Your task to perform on an android device: Open Google Maps and go to "Timeline" Image 0: 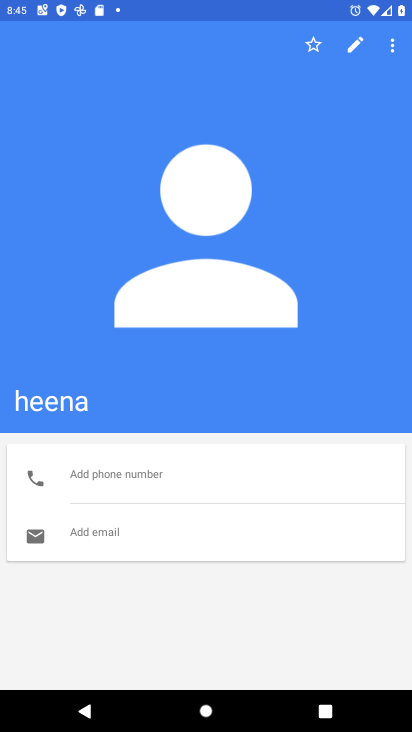
Step 0: press home button
Your task to perform on an android device: Open Google Maps and go to "Timeline" Image 1: 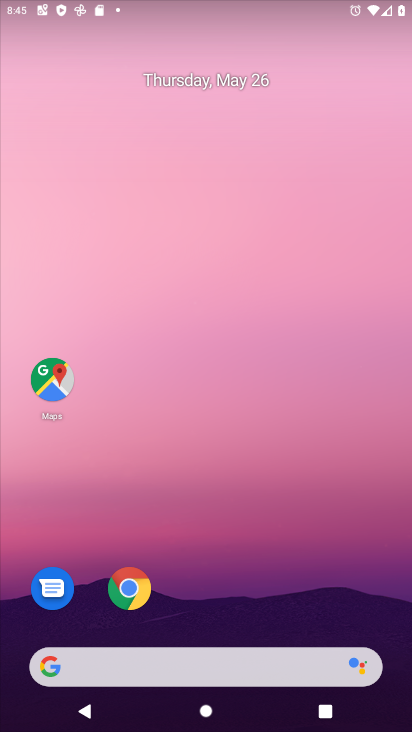
Step 1: drag from (392, 649) to (316, 80)
Your task to perform on an android device: Open Google Maps and go to "Timeline" Image 2: 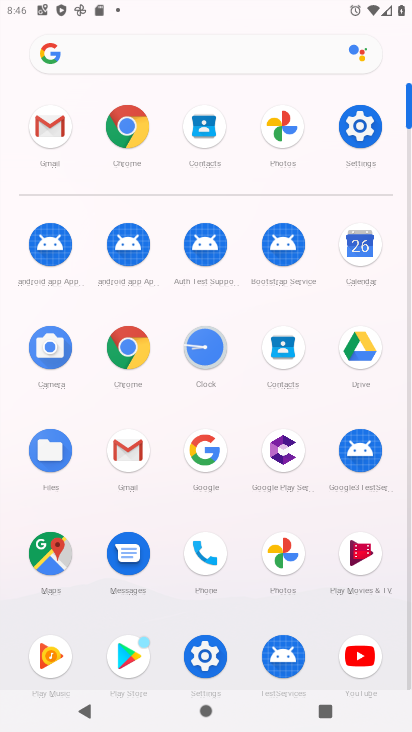
Step 2: click (65, 541)
Your task to perform on an android device: Open Google Maps and go to "Timeline" Image 3: 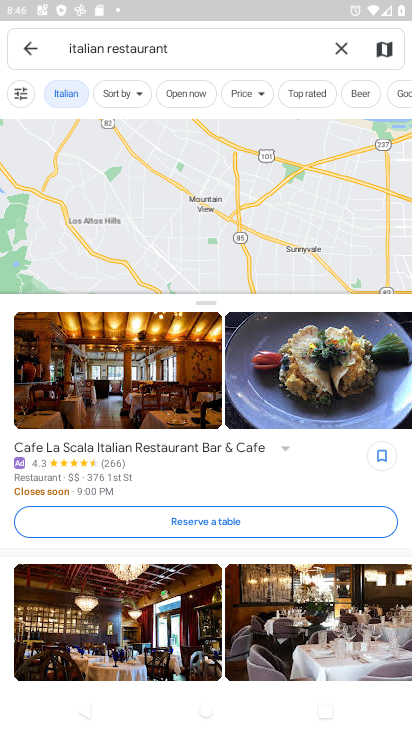
Step 3: press back button
Your task to perform on an android device: Open Google Maps and go to "Timeline" Image 4: 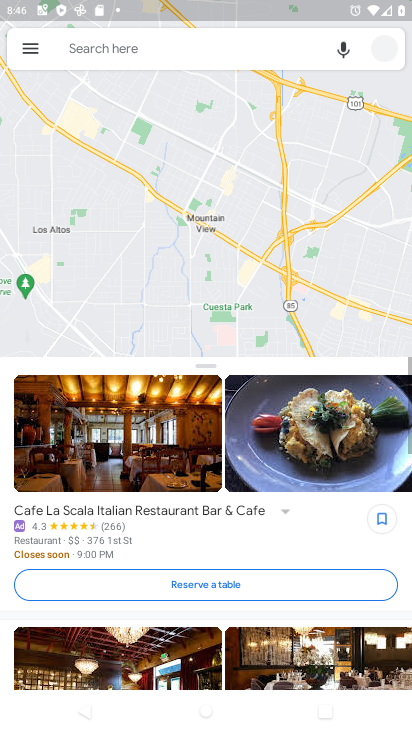
Step 4: click (32, 49)
Your task to perform on an android device: Open Google Maps and go to "Timeline" Image 5: 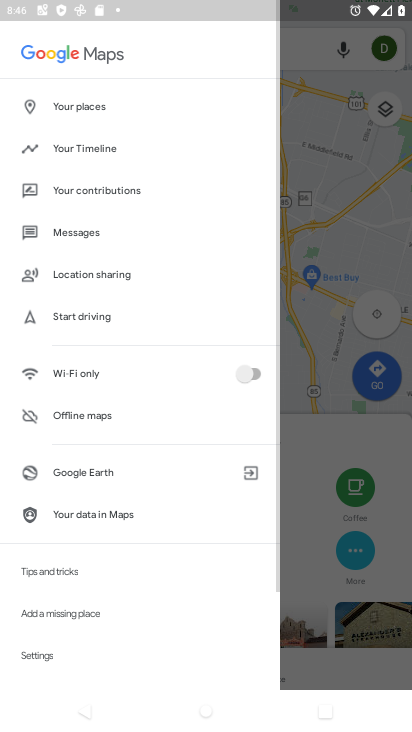
Step 5: click (91, 147)
Your task to perform on an android device: Open Google Maps and go to "Timeline" Image 6: 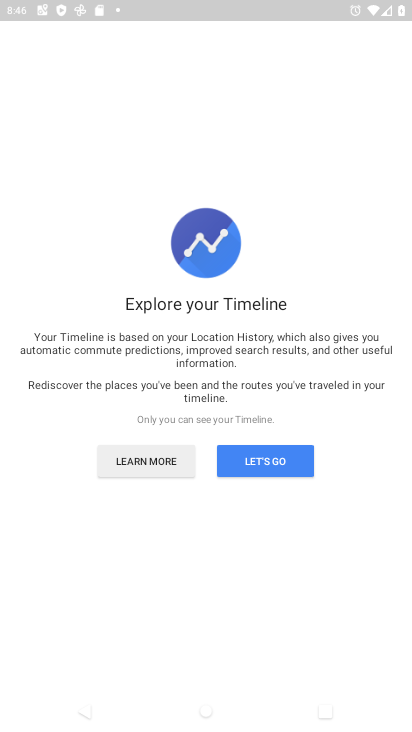
Step 6: task complete